Your task to perform on an android device: Search for razer deathadder on walmart.com, select the first entry, and add it to the cart. Image 0: 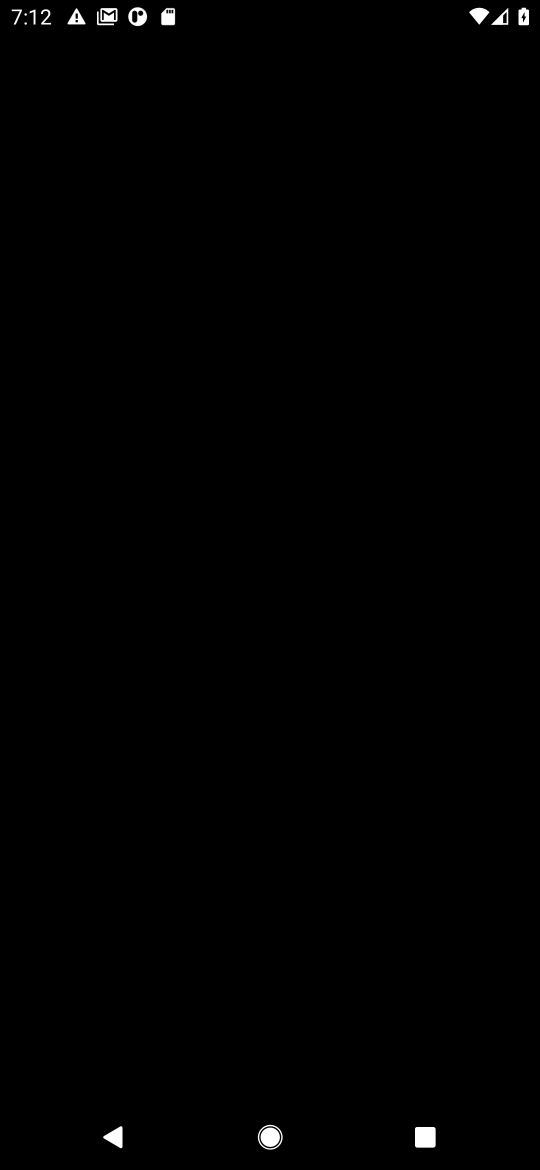
Step 0: press home button
Your task to perform on an android device: Search for razer deathadder on walmart.com, select the first entry, and add it to the cart. Image 1: 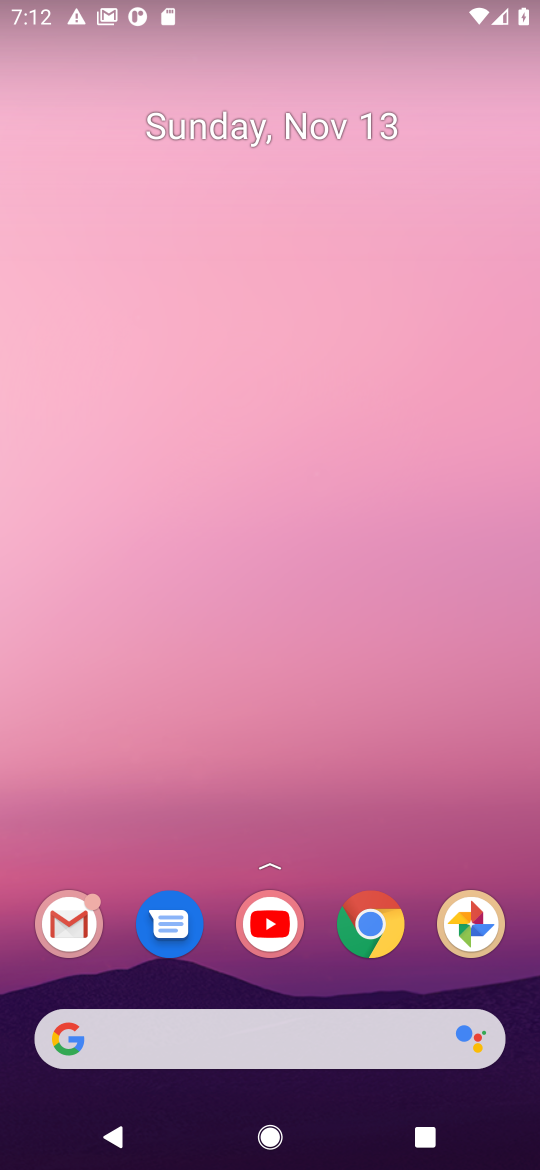
Step 1: click (360, 924)
Your task to perform on an android device: Search for razer deathadder on walmart.com, select the first entry, and add it to the cart. Image 2: 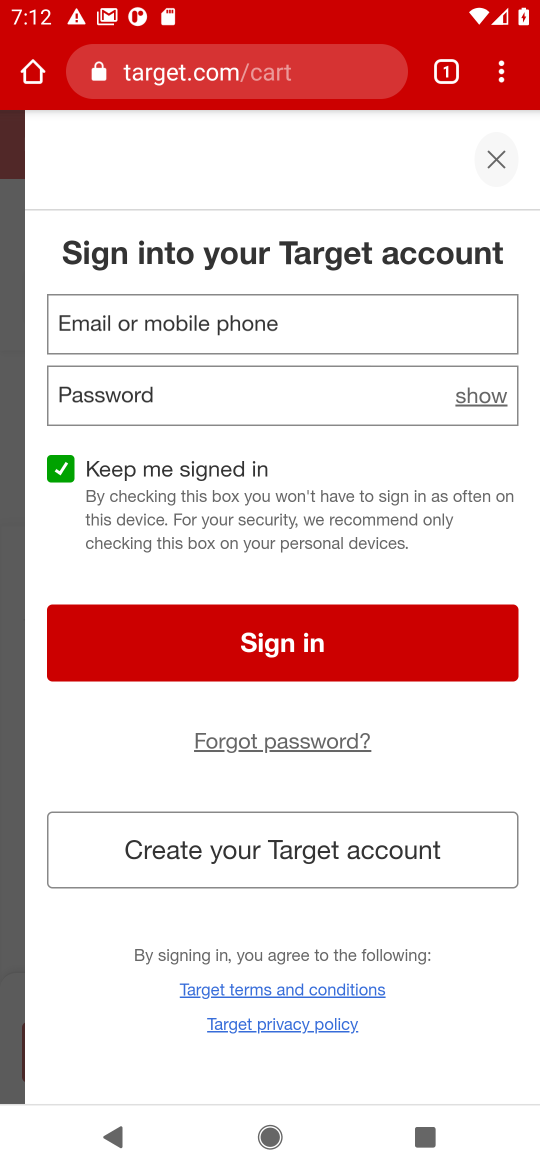
Step 2: click (188, 79)
Your task to perform on an android device: Search for razer deathadder on walmart.com, select the first entry, and add it to the cart. Image 3: 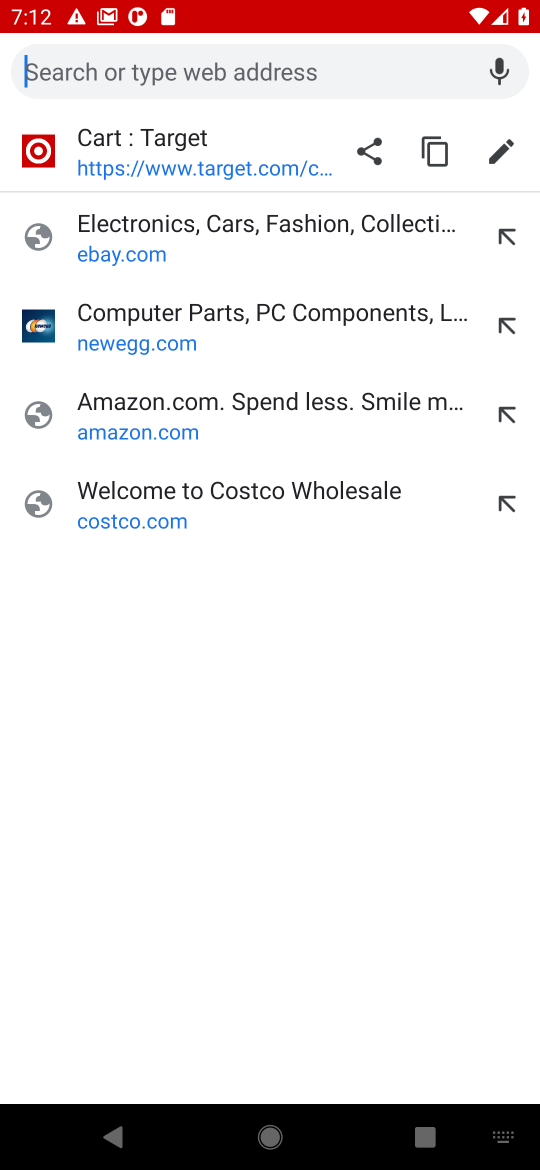
Step 3: type "walmart.com"
Your task to perform on an android device: Search for razer deathadder on walmart.com, select the first entry, and add it to the cart. Image 4: 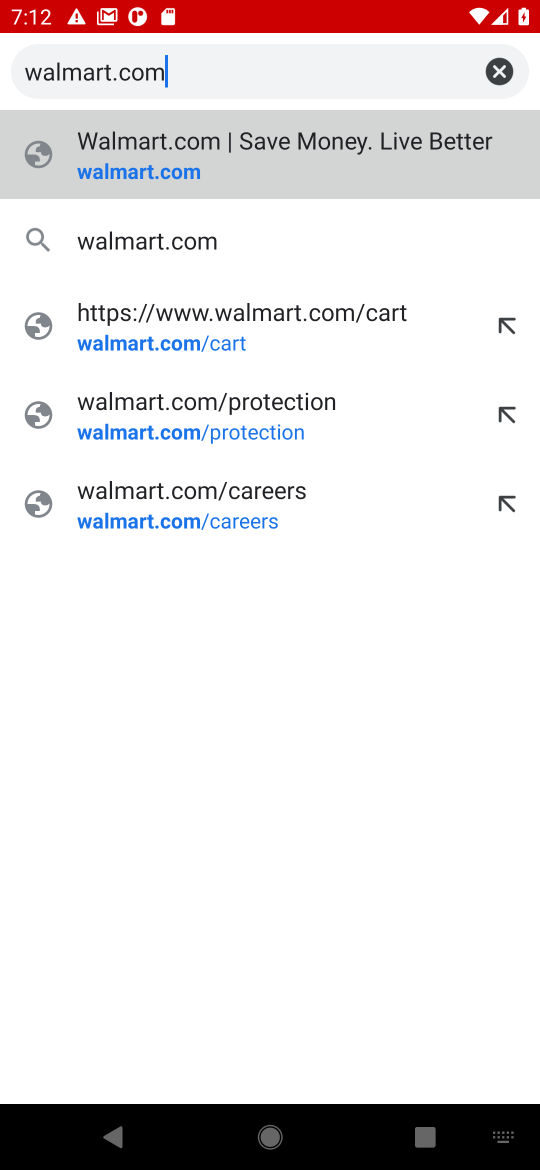
Step 4: click (138, 158)
Your task to perform on an android device: Search for razer deathadder on walmart.com, select the first entry, and add it to the cart. Image 5: 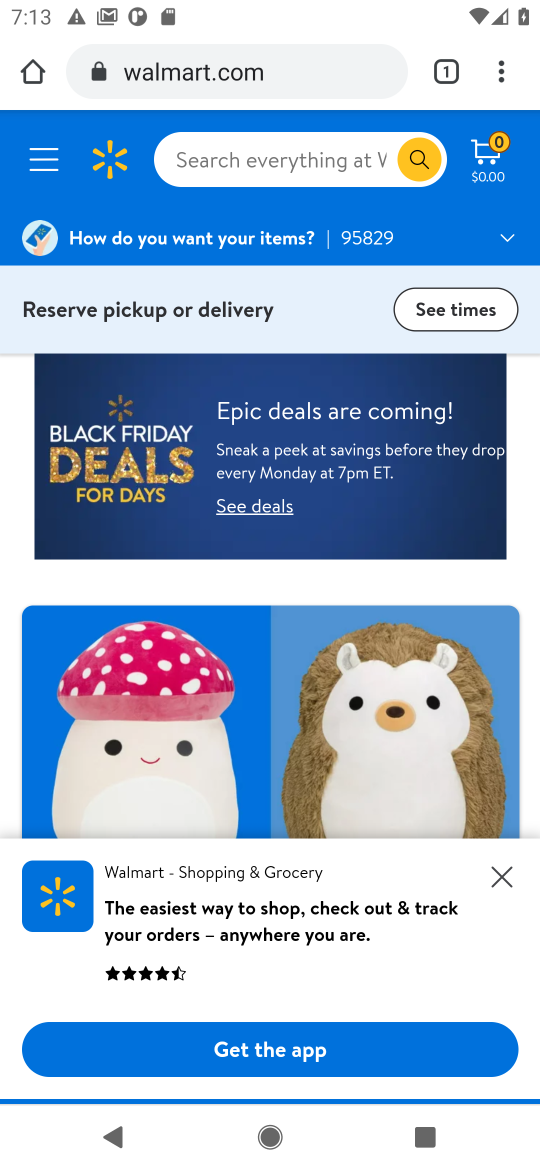
Step 5: click (219, 166)
Your task to perform on an android device: Search for razer deathadder on walmart.com, select the first entry, and add it to the cart. Image 6: 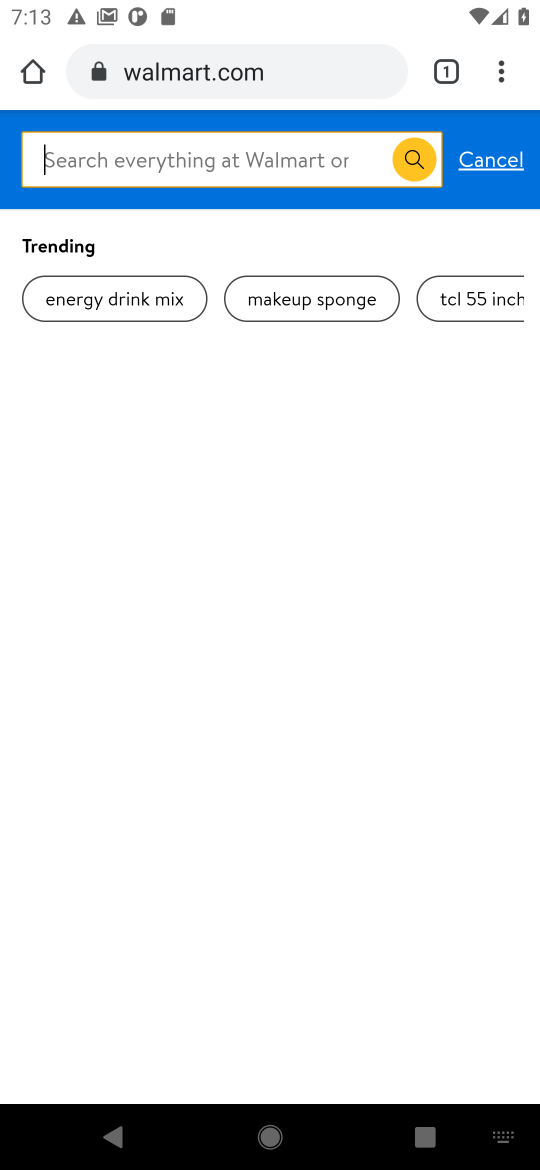
Step 6: type "razer deathadder "
Your task to perform on an android device: Search for razer deathadder on walmart.com, select the first entry, and add it to the cart. Image 7: 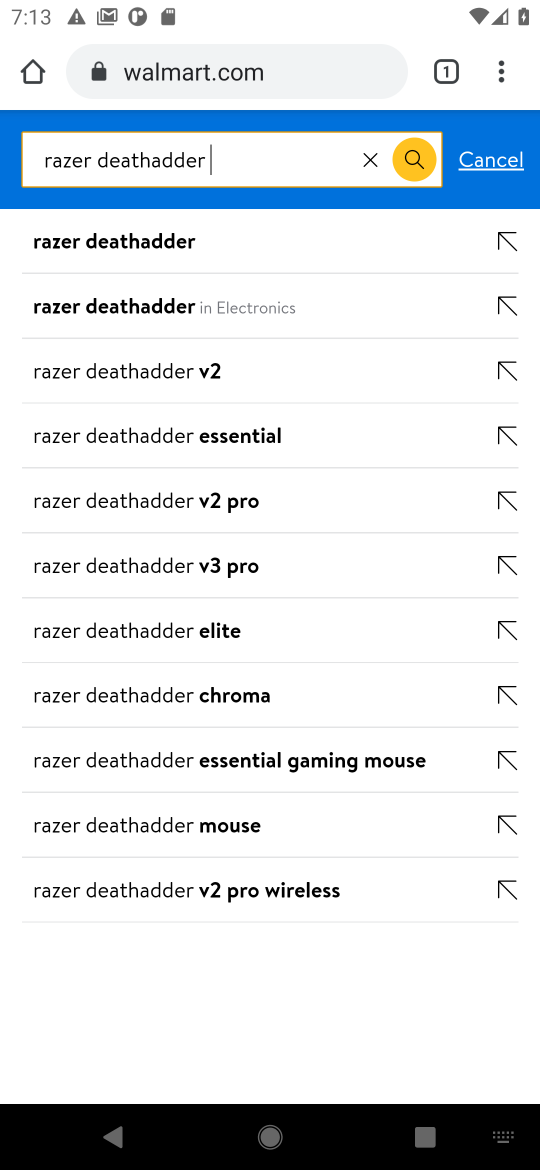
Step 7: click (109, 241)
Your task to perform on an android device: Search for razer deathadder on walmart.com, select the first entry, and add it to the cart. Image 8: 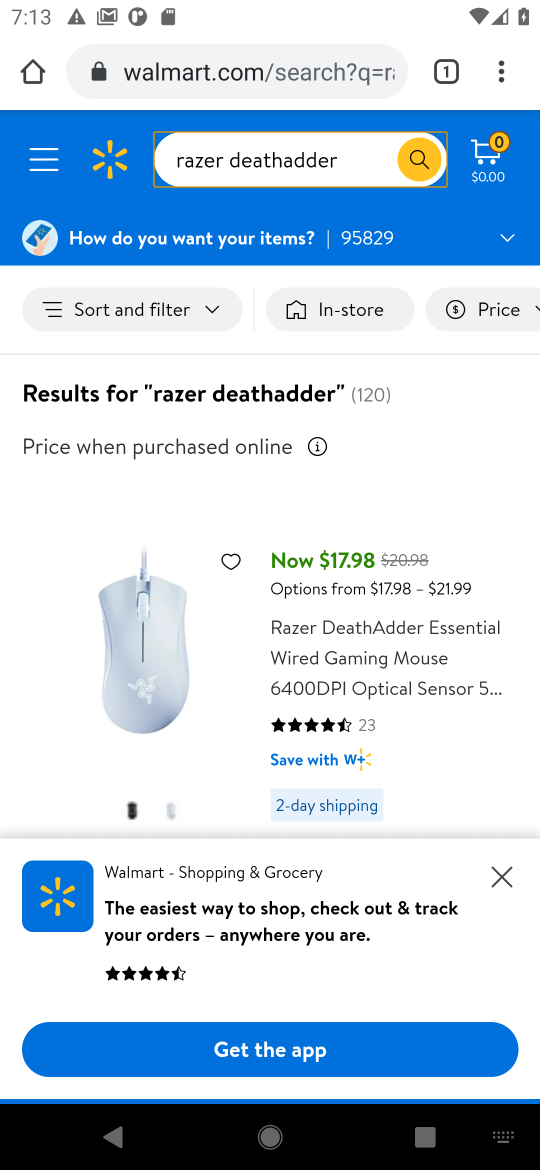
Step 8: click (499, 868)
Your task to perform on an android device: Search for razer deathadder on walmart.com, select the first entry, and add it to the cart. Image 9: 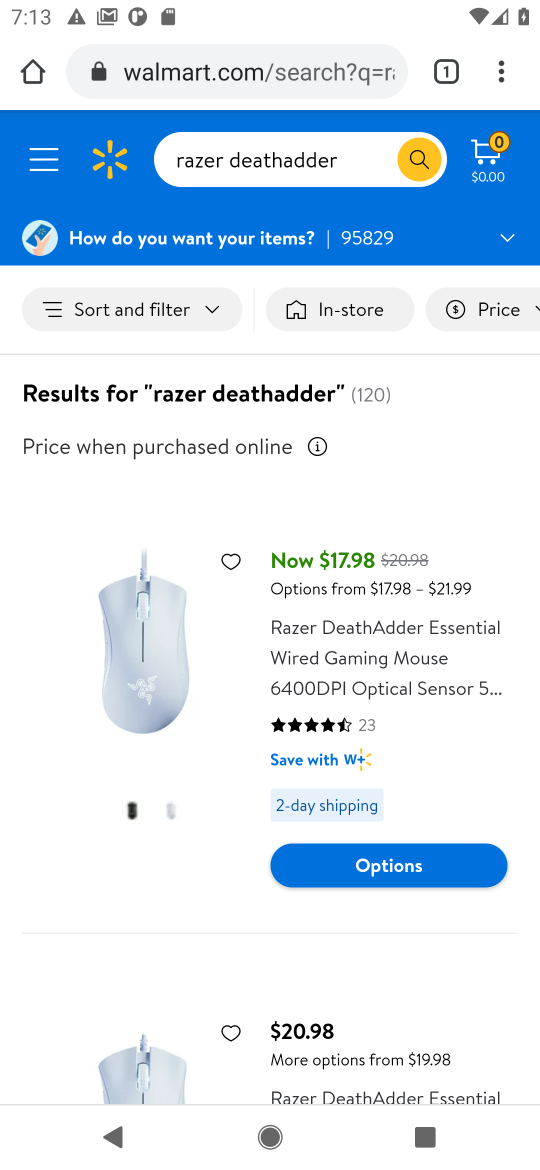
Step 9: click (163, 699)
Your task to perform on an android device: Search for razer deathadder on walmart.com, select the first entry, and add it to the cart. Image 10: 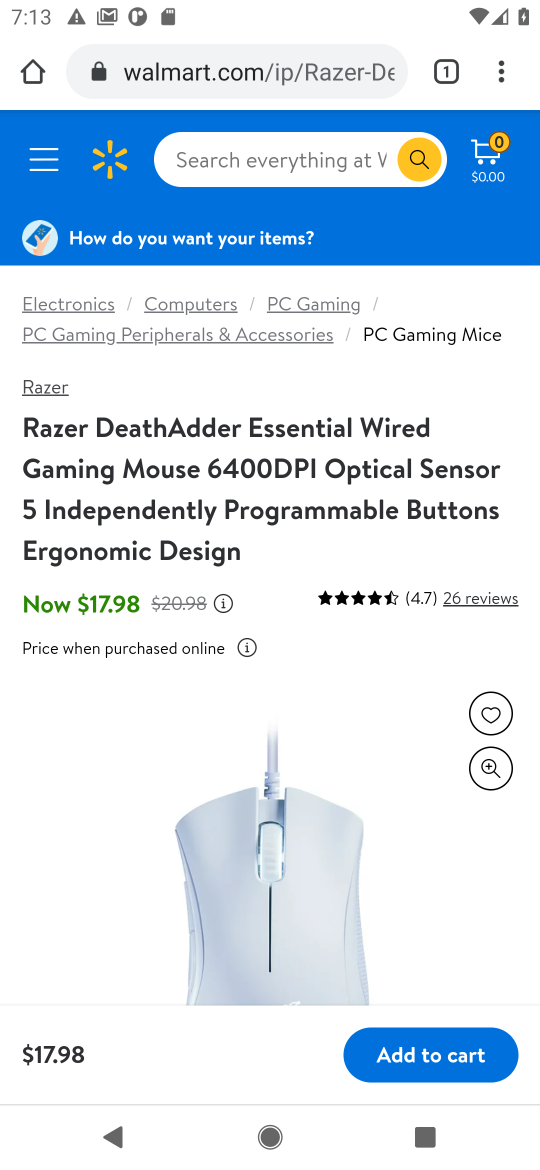
Step 10: click (406, 1048)
Your task to perform on an android device: Search for razer deathadder on walmart.com, select the first entry, and add it to the cart. Image 11: 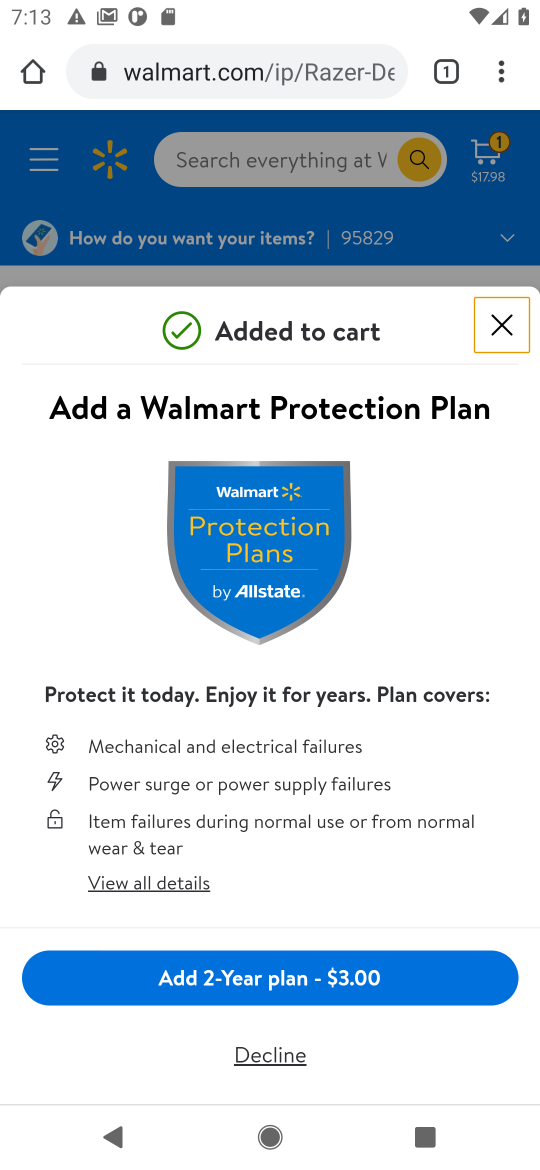
Step 11: click (497, 322)
Your task to perform on an android device: Search for razer deathadder on walmart.com, select the first entry, and add it to the cart. Image 12: 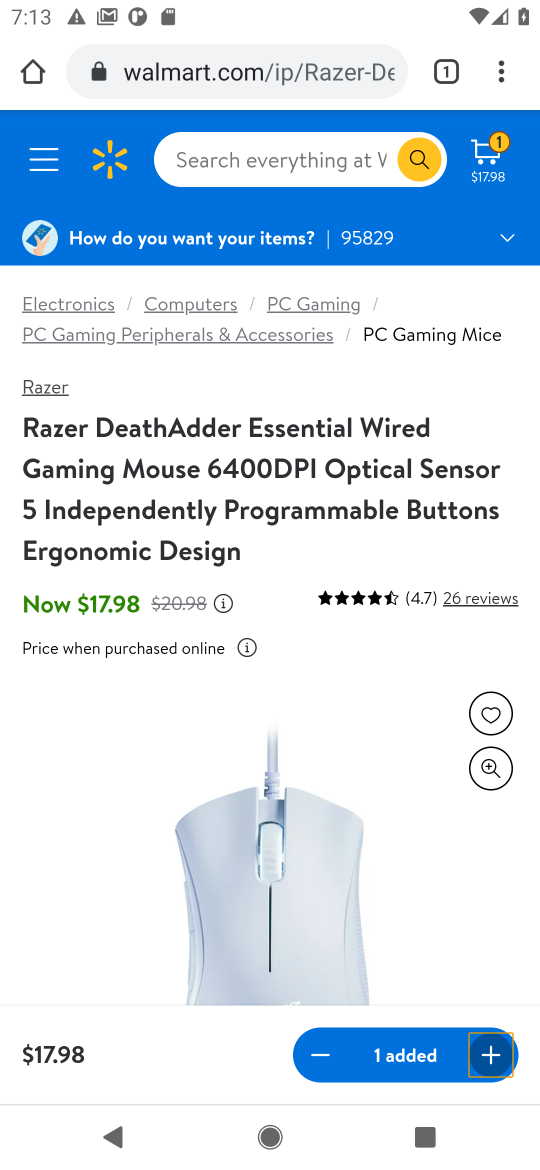
Step 12: task complete